Your task to perform on an android device: Search for Mexican restaurants on Maps Image 0: 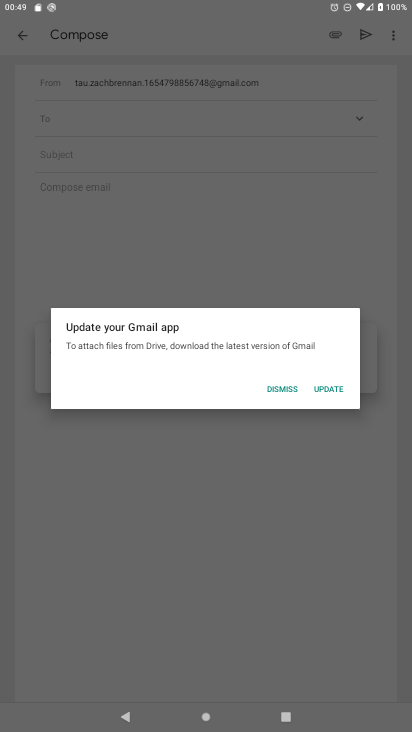
Step 0: press home button
Your task to perform on an android device: Search for Mexican restaurants on Maps Image 1: 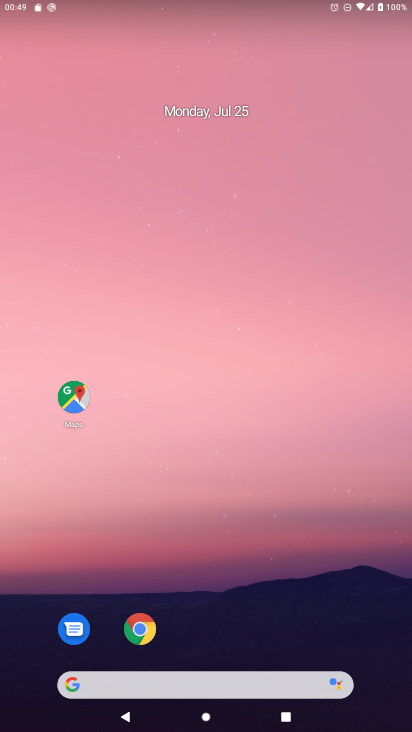
Step 1: click (206, 0)
Your task to perform on an android device: Search for Mexican restaurants on Maps Image 2: 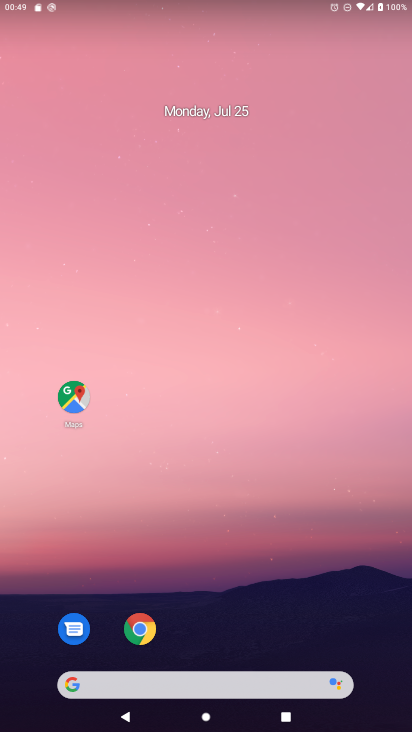
Step 2: click (68, 390)
Your task to perform on an android device: Search for Mexican restaurants on Maps Image 3: 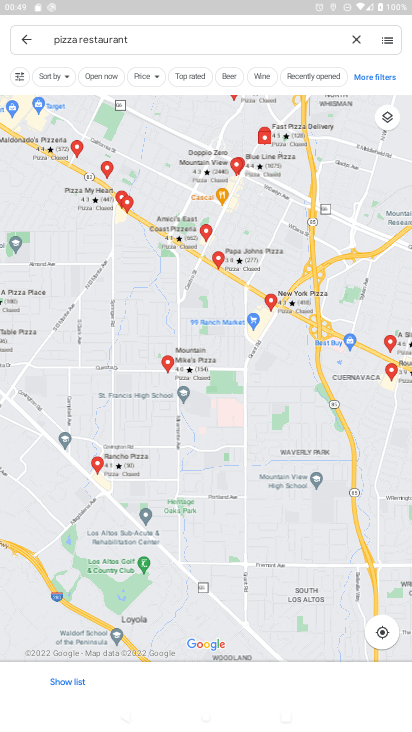
Step 3: click (355, 39)
Your task to perform on an android device: Search for Mexican restaurants on Maps Image 4: 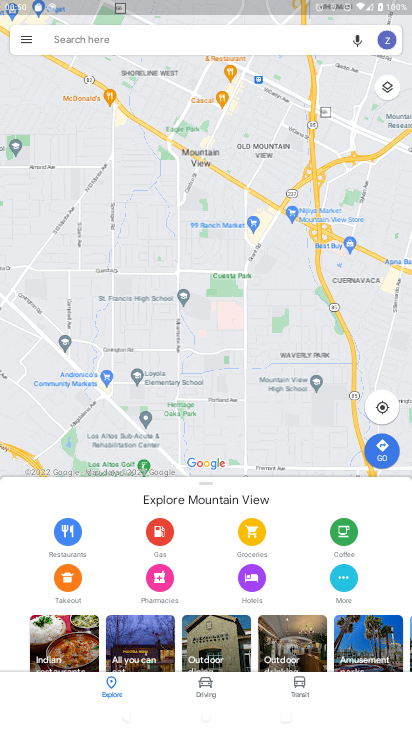
Step 4: click (60, 47)
Your task to perform on an android device: Search for Mexican restaurants on Maps Image 5: 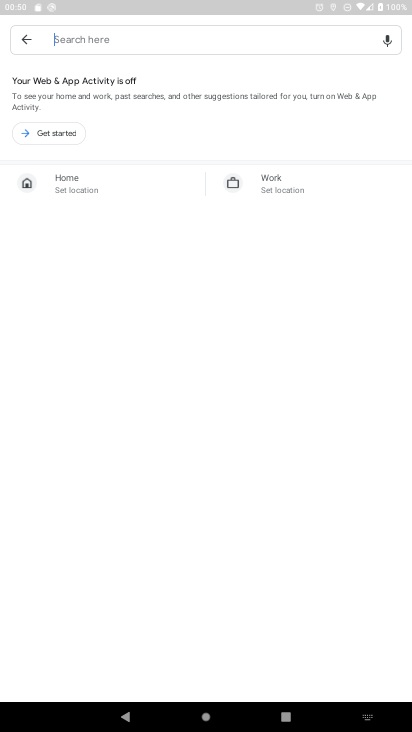
Step 5: type " Mexican restaurants"
Your task to perform on an android device: Search for Mexican restaurants on Maps Image 6: 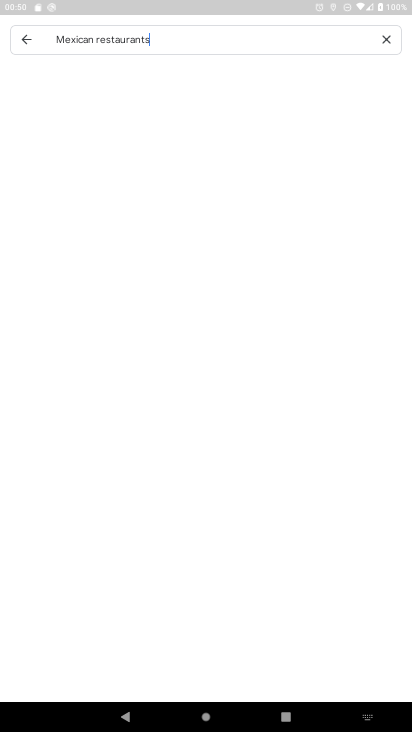
Step 6: type ""
Your task to perform on an android device: Search for Mexican restaurants on Maps Image 7: 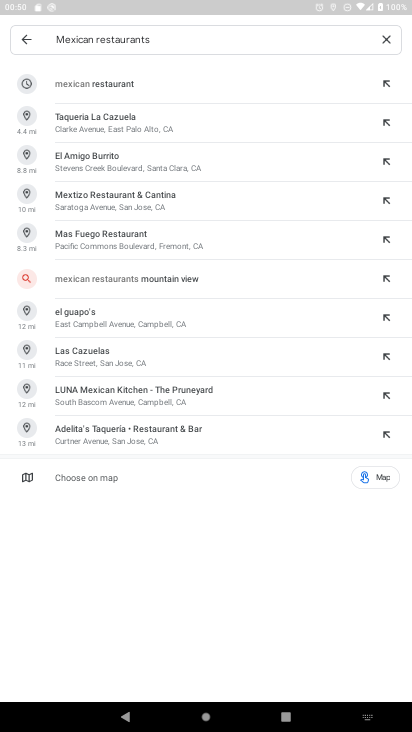
Step 7: click (100, 89)
Your task to perform on an android device: Search for Mexican restaurants on Maps Image 8: 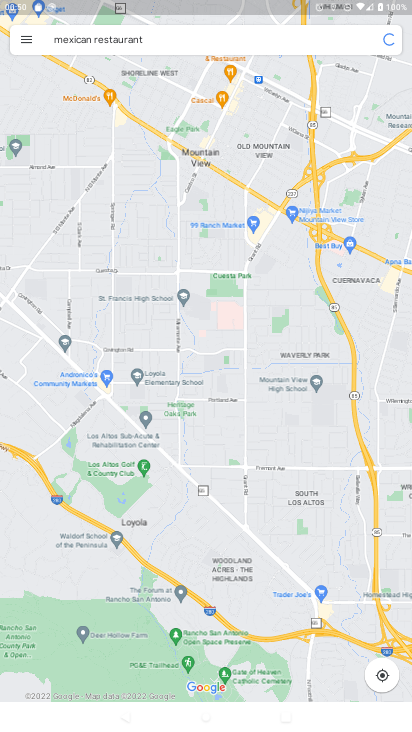
Step 8: task complete